Your task to perform on an android device: clear all cookies in the chrome app Image 0: 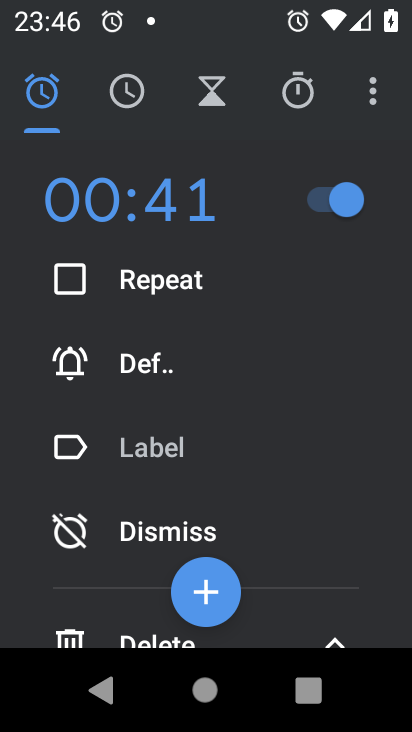
Step 0: press home button
Your task to perform on an android device: clear all cookies in the chrome app Image 1: 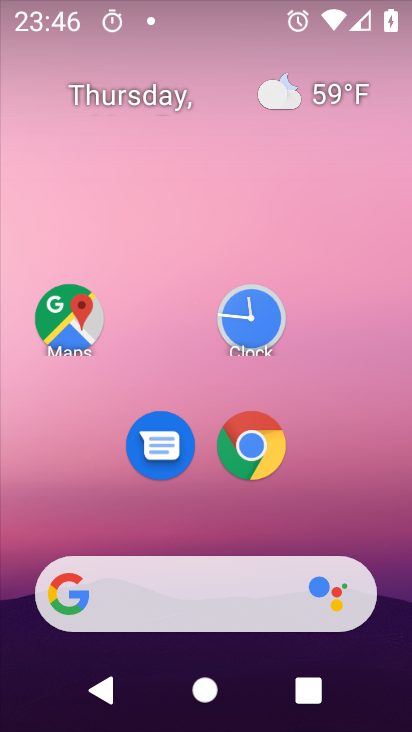
Step 1: click (253, 464)
Your task to perform on an android device: clear all cookies in the chrome app Image 2: 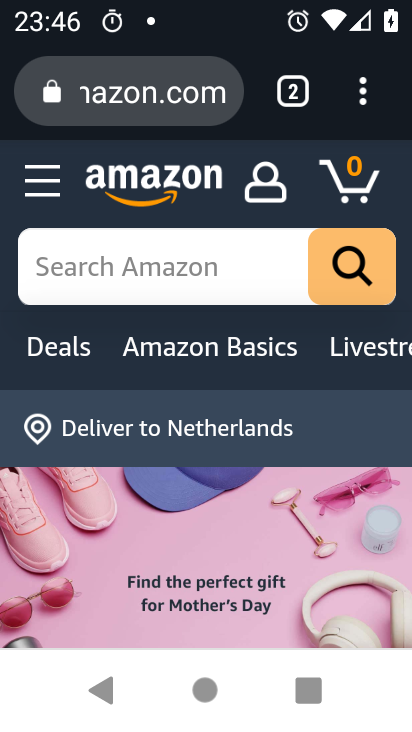
Step 2: drag from (358, 115) to (151, 473)
Your task to perform on an android device: clear all cookies in the chrome app Image 3: 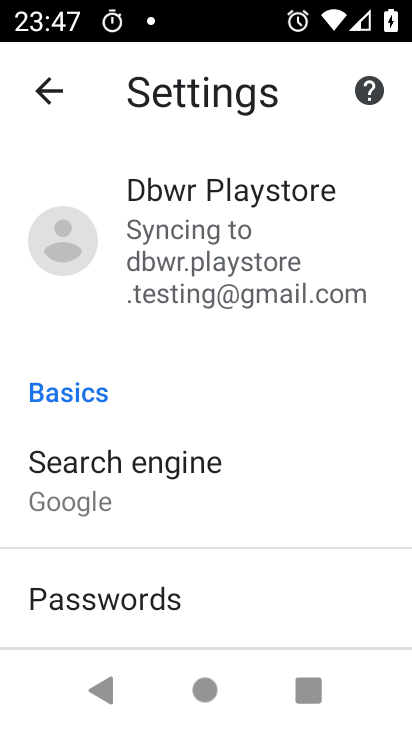
Step 3: drag from (192, 578) to (226, 69)
Your task to perform on an android device: clear all cookies in the chrome app Image 4: 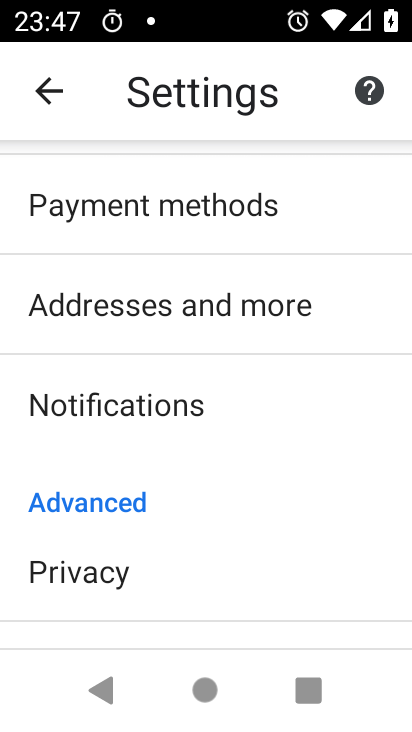
Step 4: click (171, 573)
Your task to perform on an android device: clear all cookies in the chrome app Image 5: 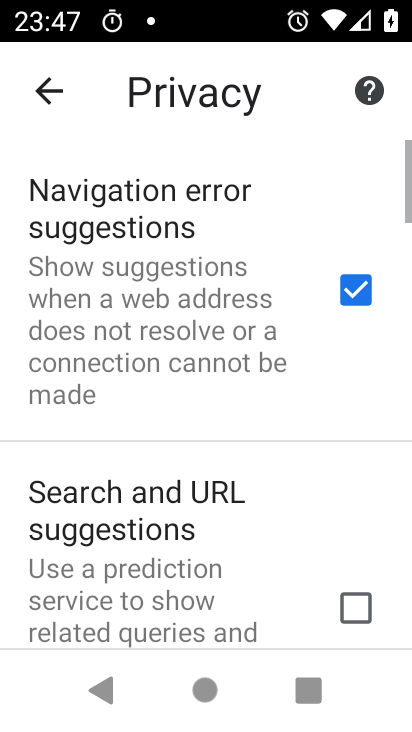
Step 5: drag from (208, 599) to (203, 39)
Your task to perform on an android device: clear all cookies in the chrome app Image 6: 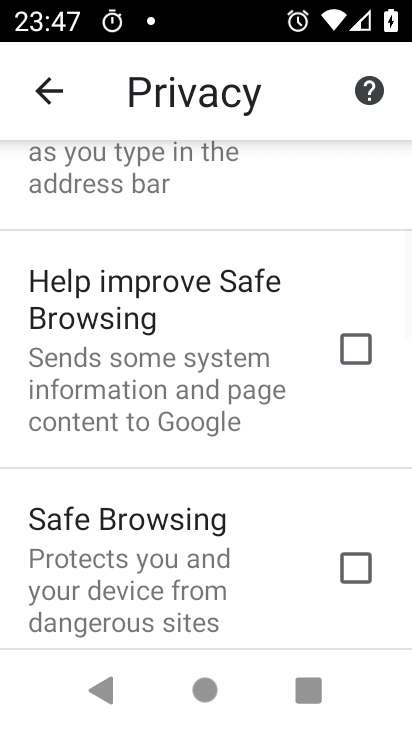
Step 6: drag from (218, 548) to (262, 88)
Your task to perform on an android device: clear all cookies in the chrome app Image 7: 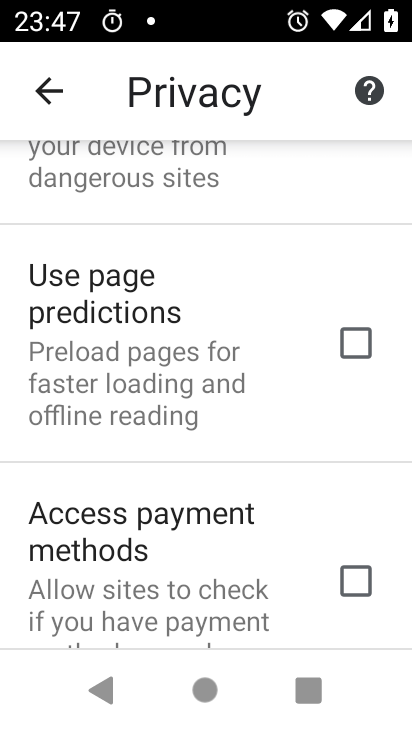
Step 7: drag from (200, 537) to (239, 1)
Your task to perform on an android device: clear all cookies in the chrome app Image 8: 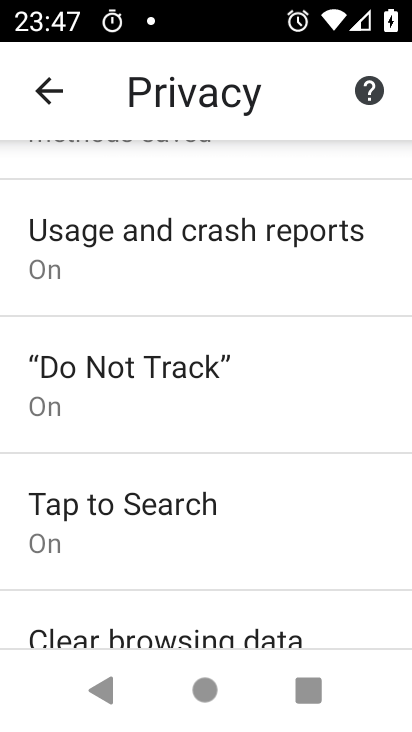
Step 8: drag from (214, 274) to (263, 621)
Your task to perform on an android device: clear all cookies in the chrome app Image 9: 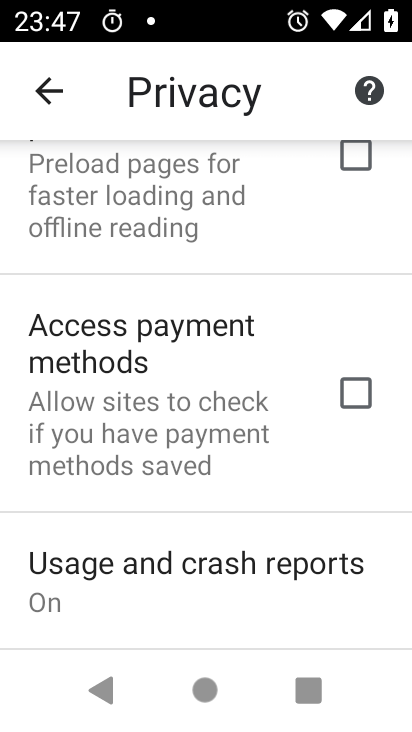
Step 9: drag from (195, 580) to (241, 131)
Your task to perform on an android device: clear all cookies in the chrome app Image 10: 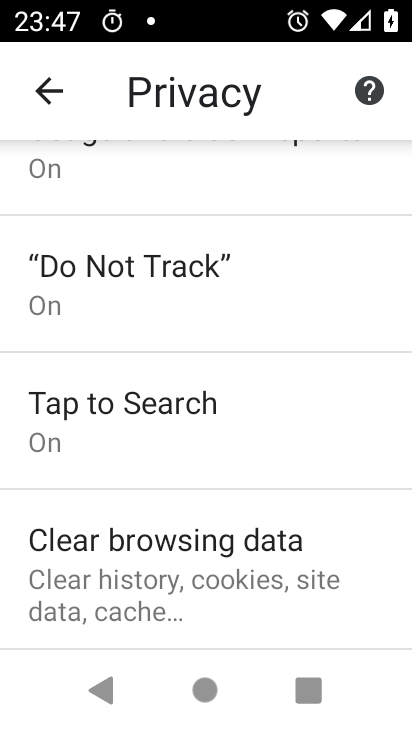
Step 10: click (249, 591)
Your task to perform on an android device: clear all cookies in the chrome app Image 11: 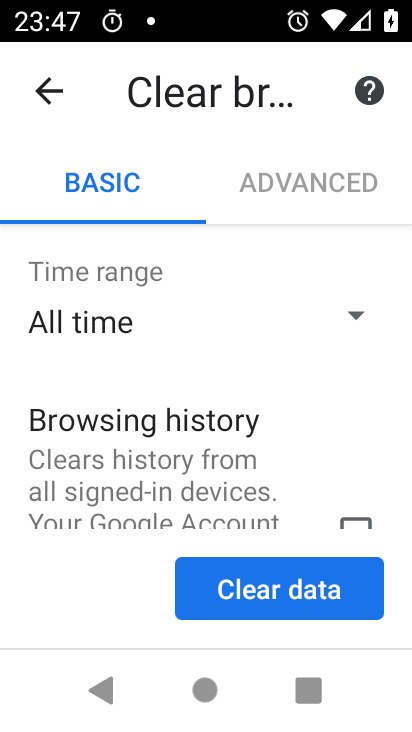
Step 11: drag from (309, 486) to (334, 58)
Your task to perform on an android device: clear all cookies in the chrome app Image 12: 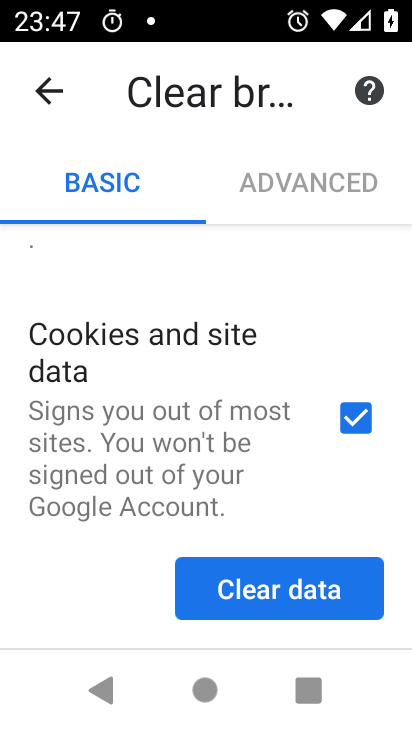
Step 12: click (325, 583)
Your task to perform on an android device: clear all cookies in the chrome app Image 13: 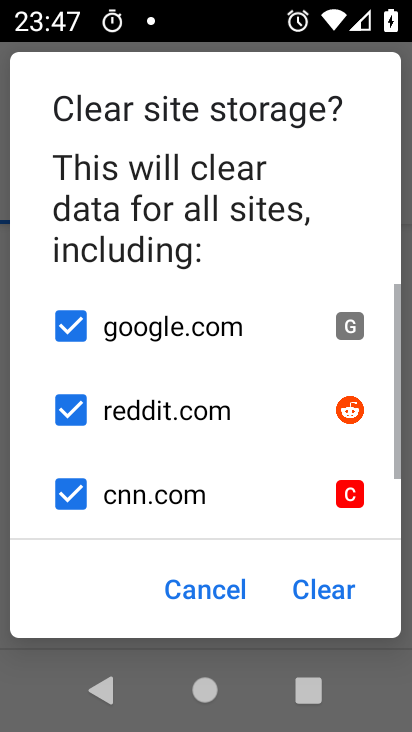
Step 13: click (336, 597)
Your task to perform on an android device: clear all cookies in the chrome app Image 14: 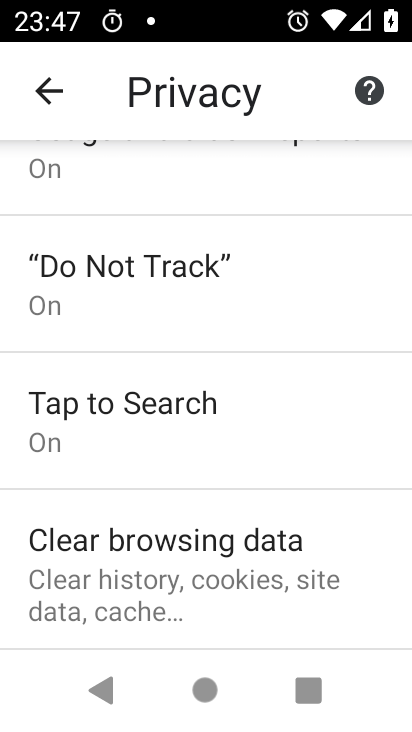
Step 14: task complete